Your task to perform on an android device: Open ESPN.com Image 0: 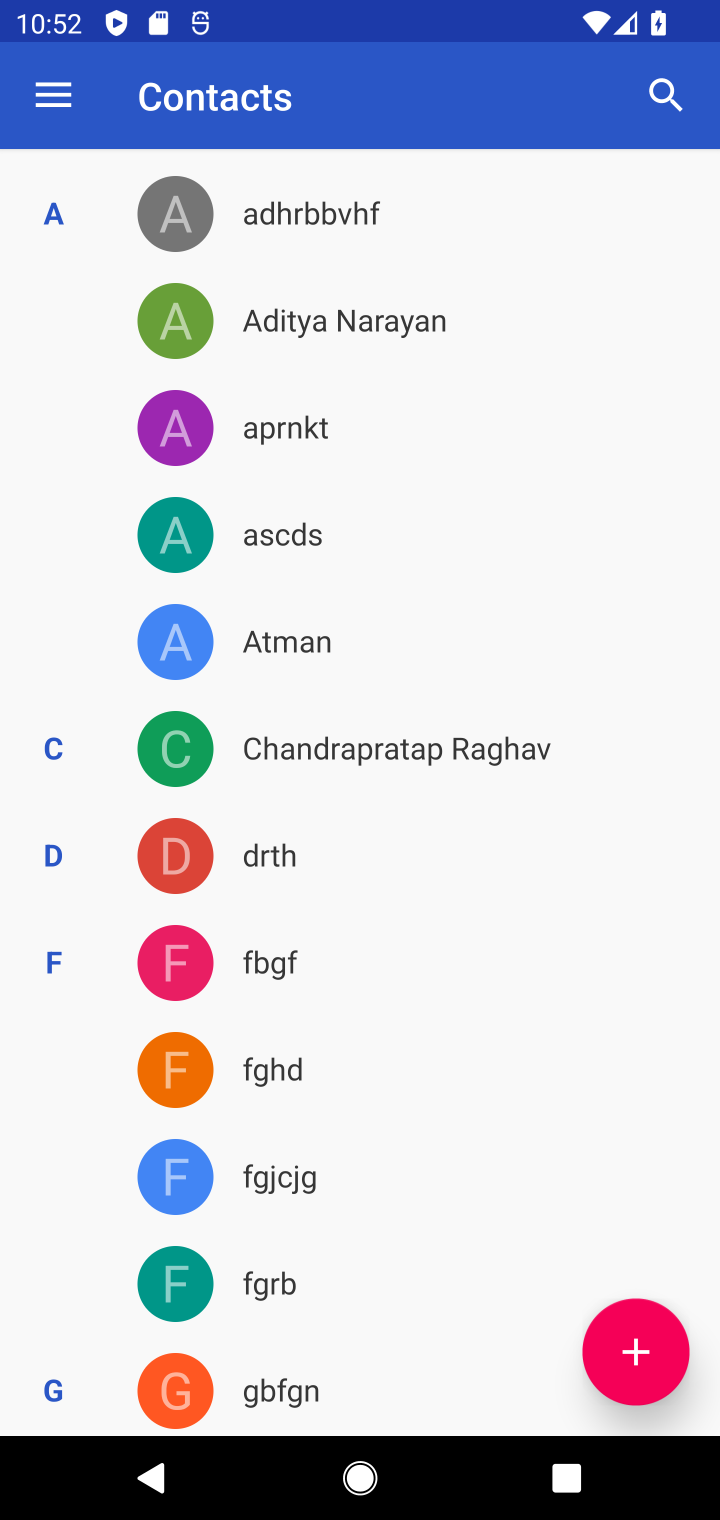
Step 0: press home button
Your task to perform on an android device: Open ESPN.com Image 1: 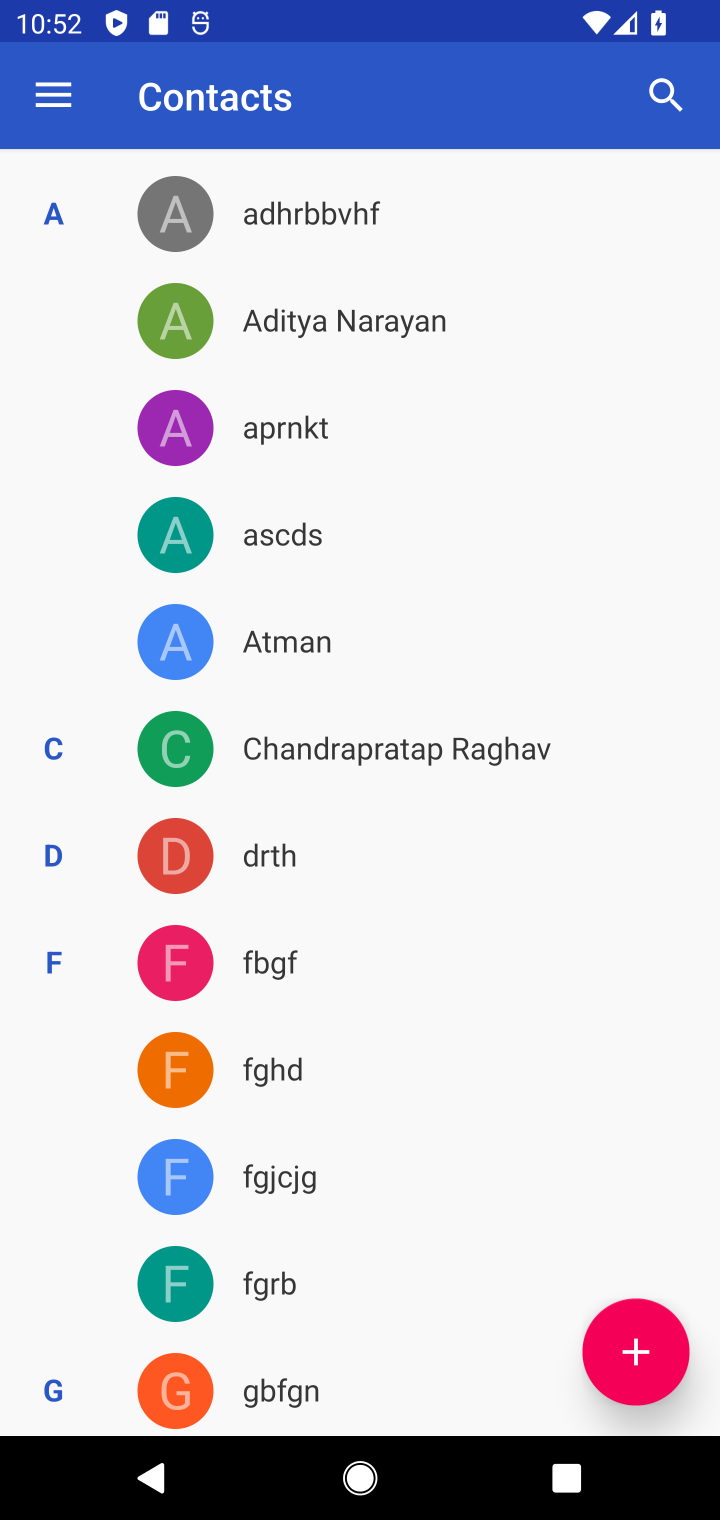
Step 1: press home button
Your task to perform on an android device: Open ESPN.com Image 2: 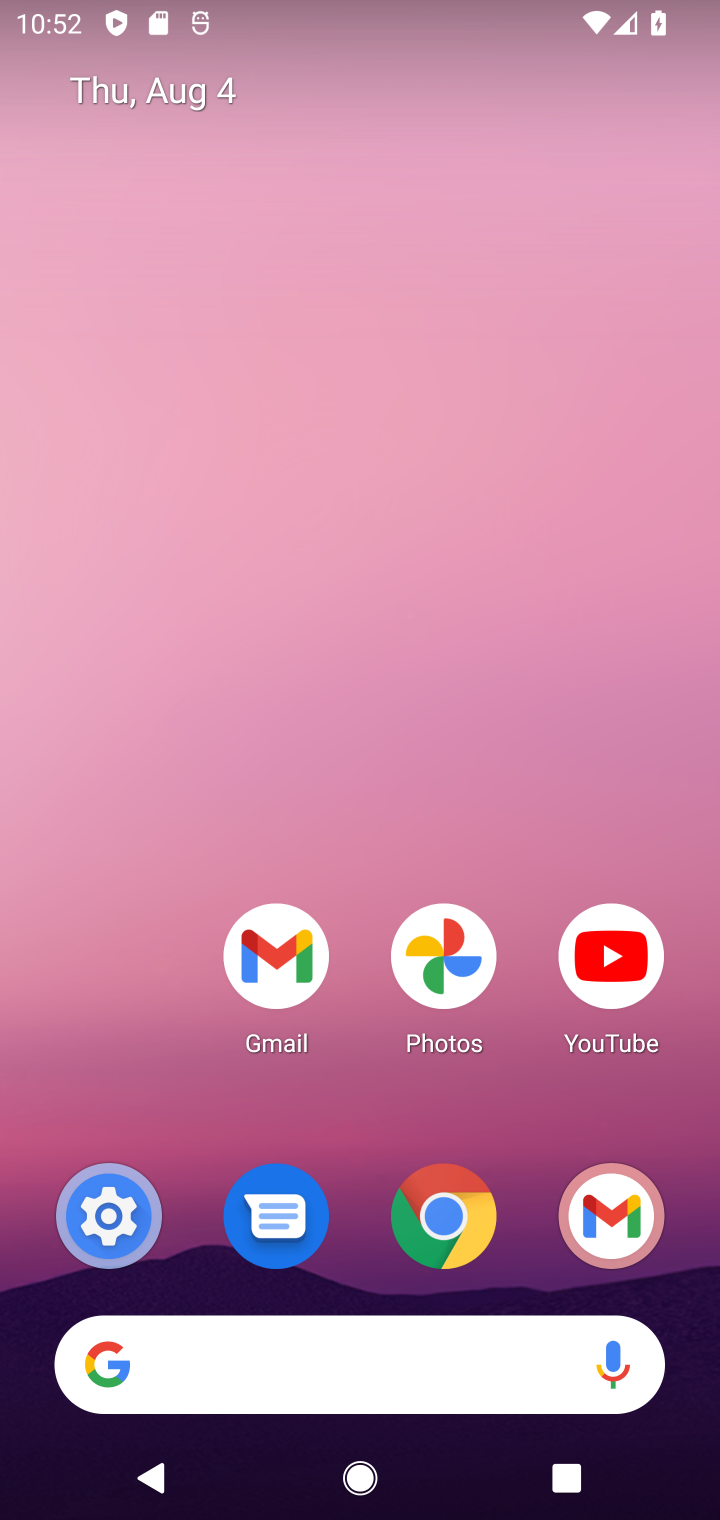
Step 2: click (478, 1357)
Your task to perform on an android device: Open ESPN.com Image 3: 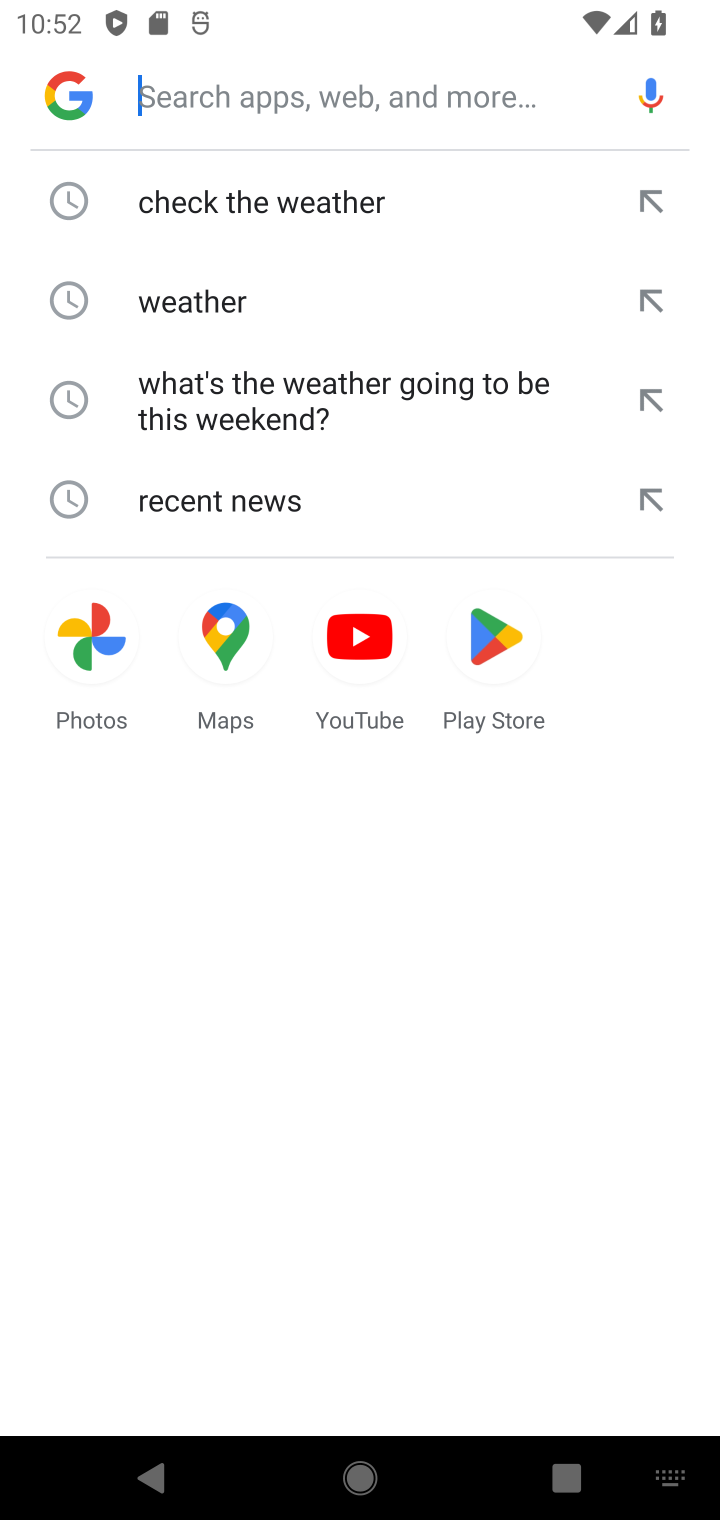
Step 3: type "espn.com"
Your task to perform on an android device: Open ESPN.com Image 4: 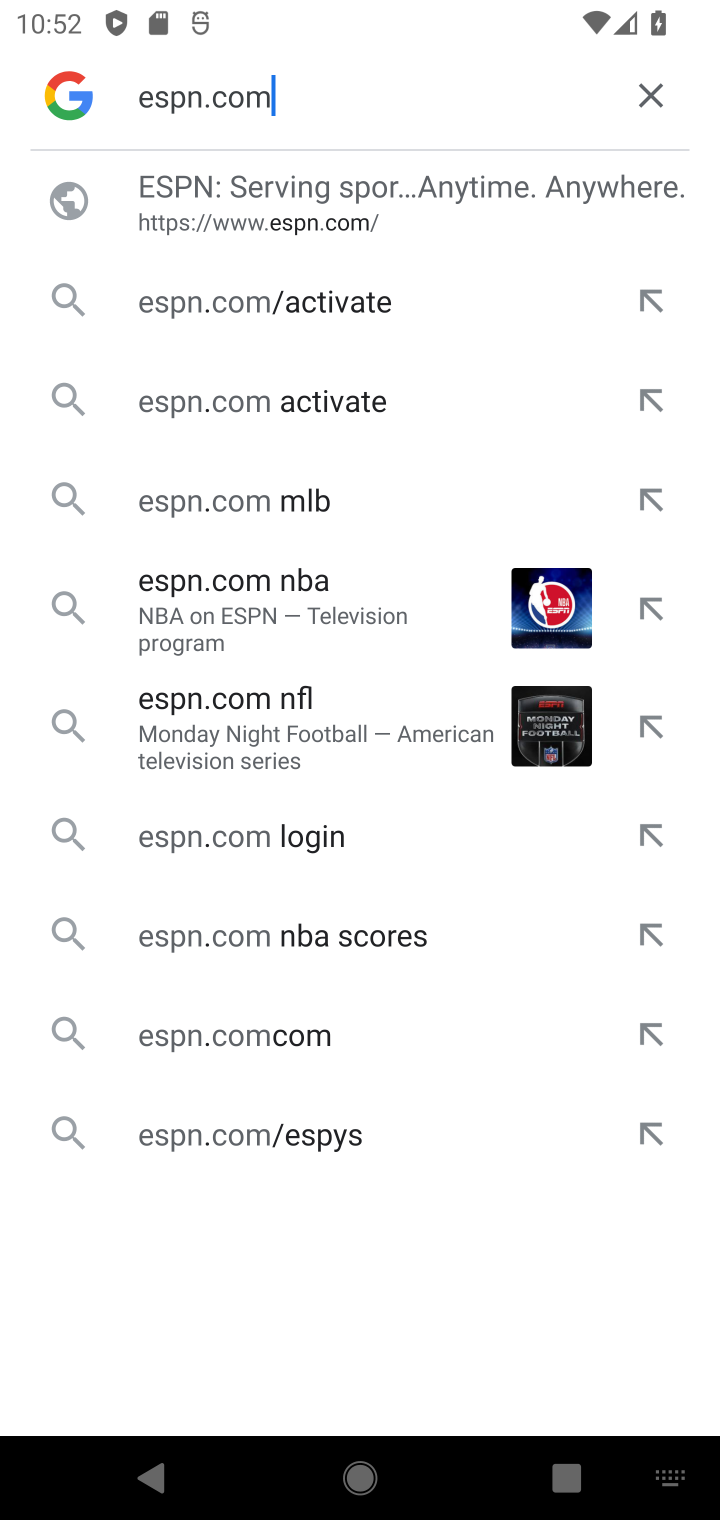
Step 4: click (359, 247)
Your task to perform on an android device: Open ESPN.com Image 5: 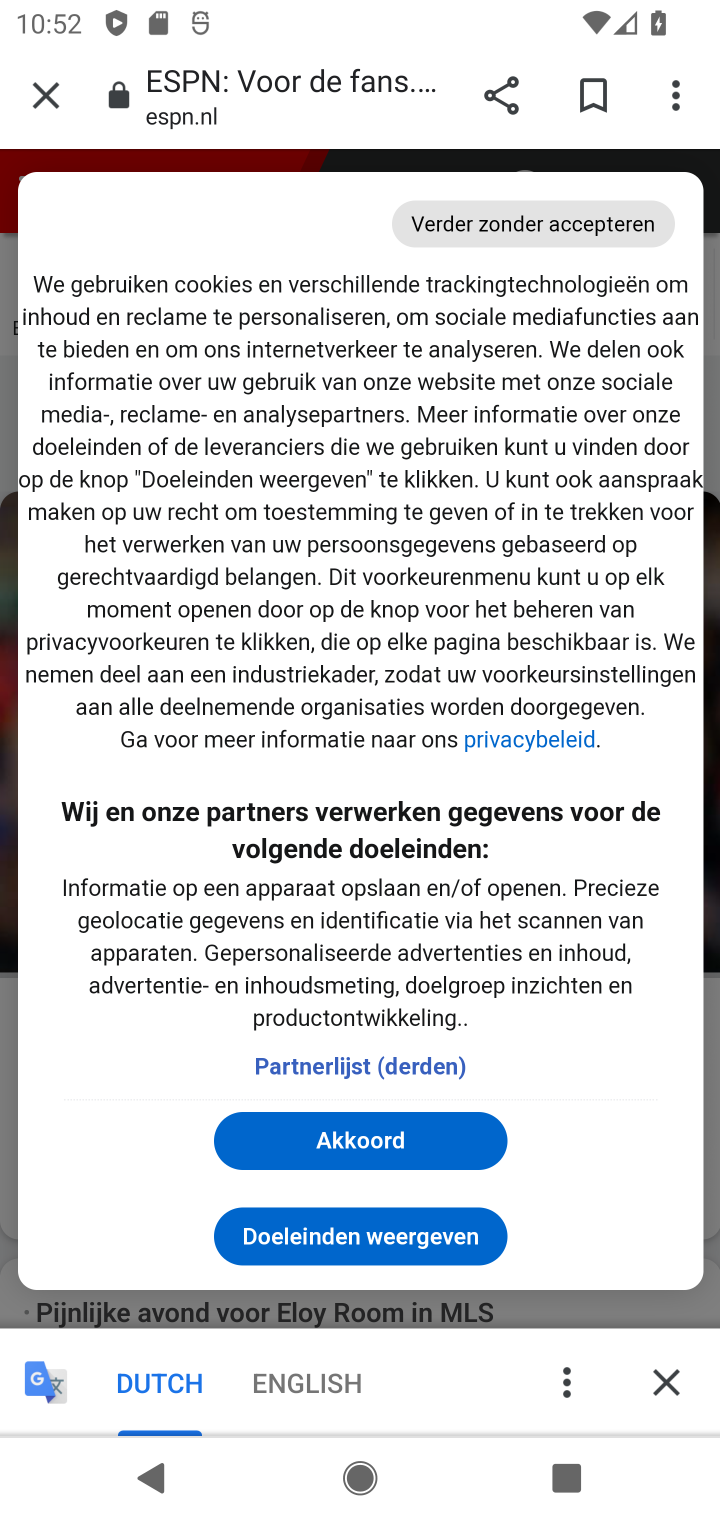
Step 5: click (323, 1385)
Your task to perform on an android device: Open ESPN.com Image 6: 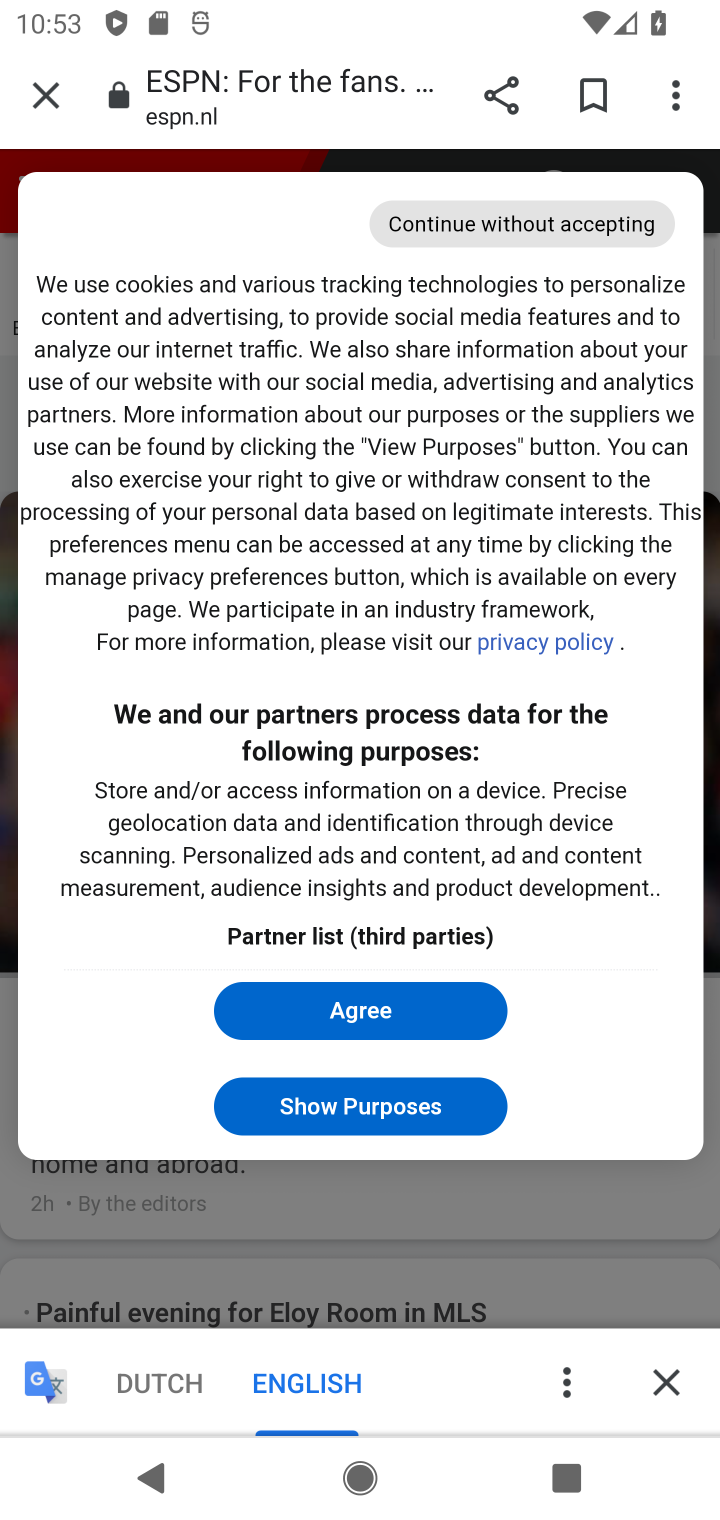
Step 6: click (474, 1003)
Your task to perform on an android device: Open ESPN.com Image 7: 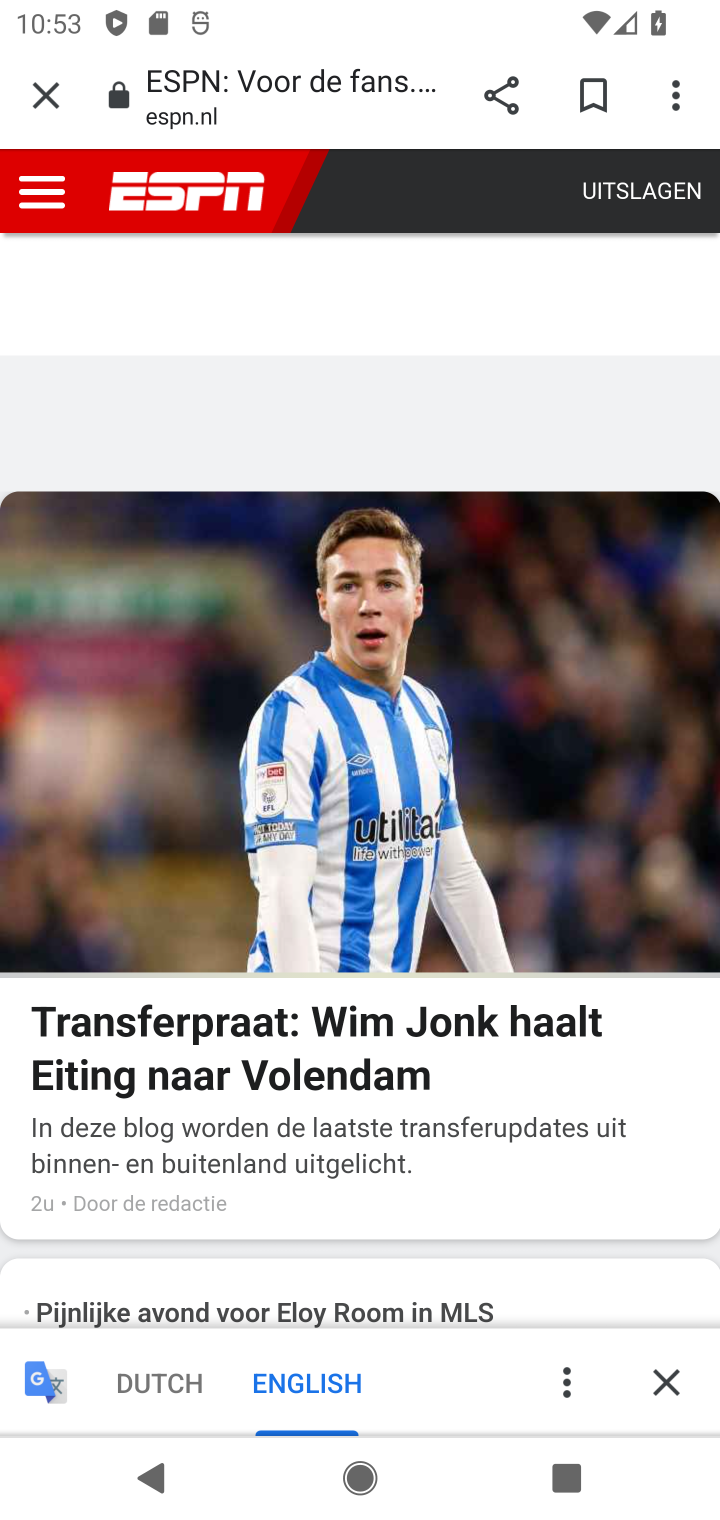
Step 7: task complete